Your task to perform on an android device: Open sound settings Image 0: 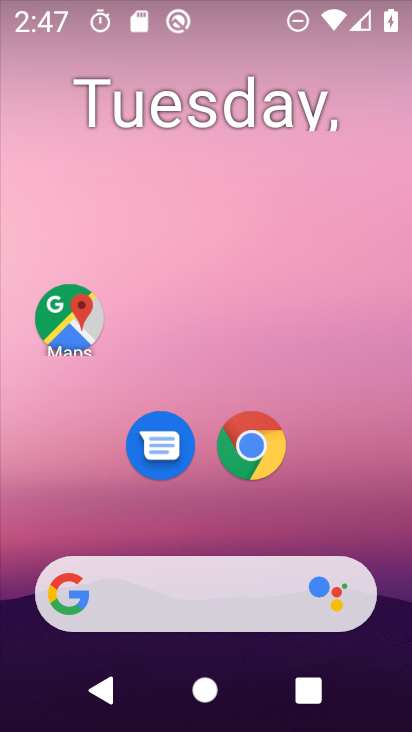
Step 0: drag from (296, 515) to (213, 150)
Your task to perform on an android device: Open sound settings Image 1: 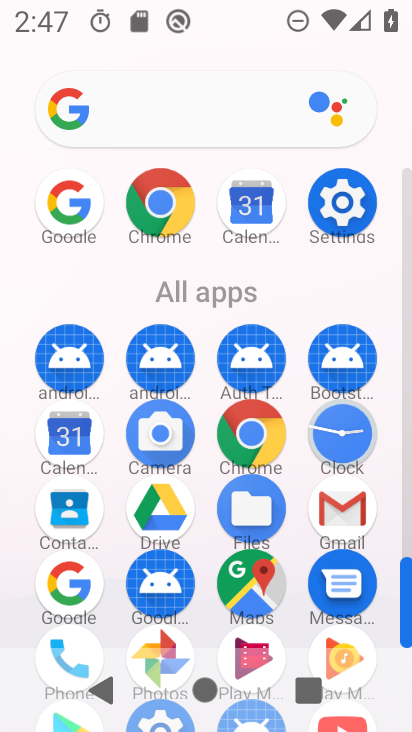
Step 1: click (348, 221)
Your task to perform on an android device: Open sound settings Image 2: 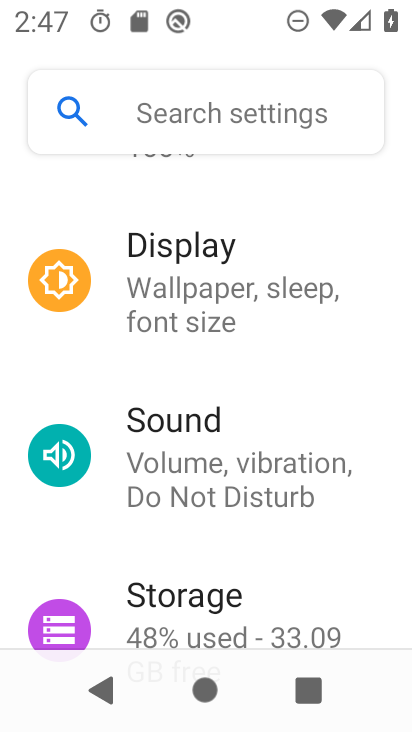
Step 2: click (204, 471)
Your task to perform on an android device: Open sound settings Image 3: 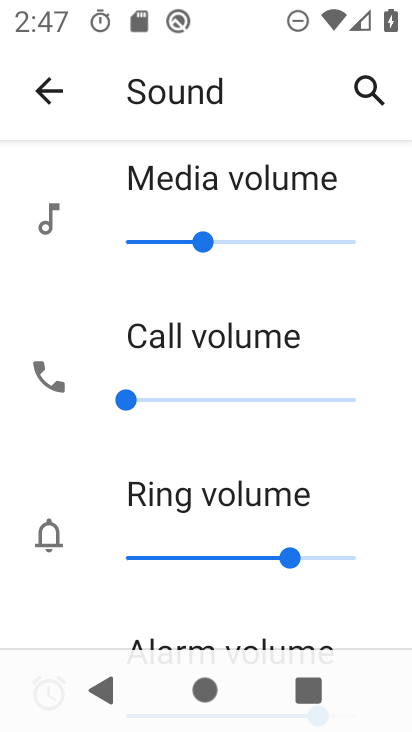
Step 3: task complete